Your task to perform on an android device: see creations saved in the google photos Image 0: 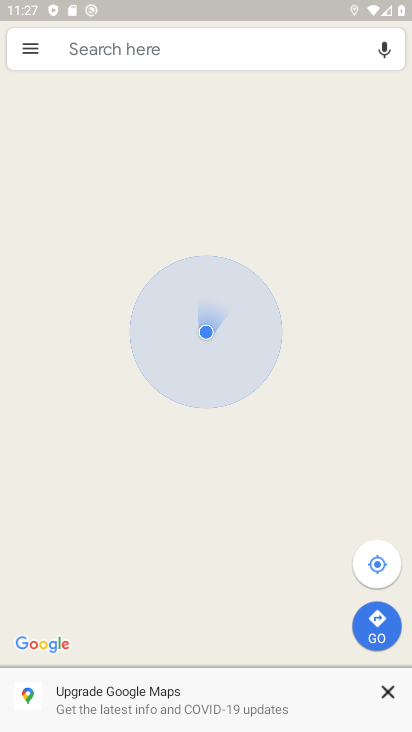
Step 0: press home button
Your task to perform on an android device: see creations saved in the google photos Image 1: 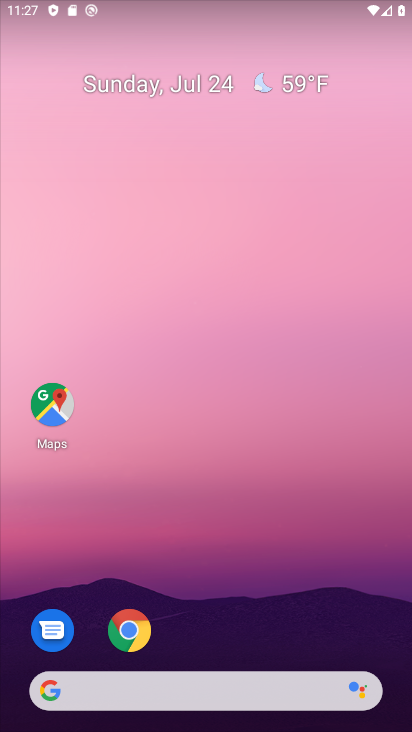
Step 1: drag from (239, 656) to (214, 154)
Your task to perform on an android device: see creations saved in the google photos Image 2: 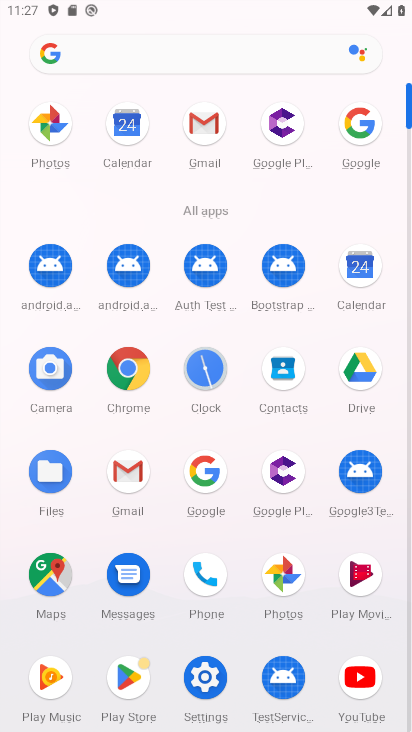
Step 2: click (284, 577)
Your task to perform on an android device: see creations saved in the google photos Image 3: 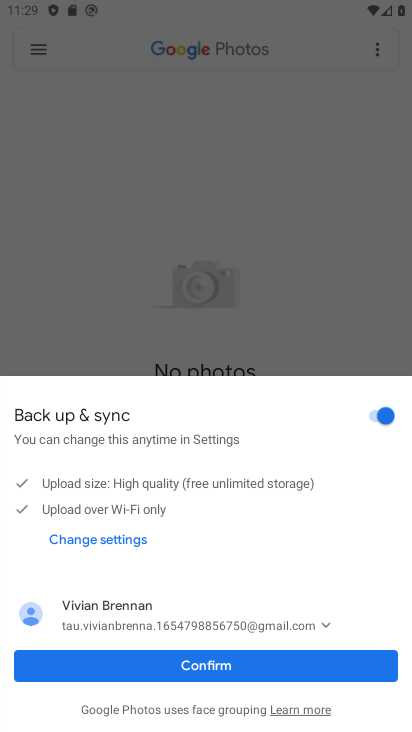
Step 3: click (220, 658)
Your task to perform on an android device: see creations saved in the google photos Image 4: 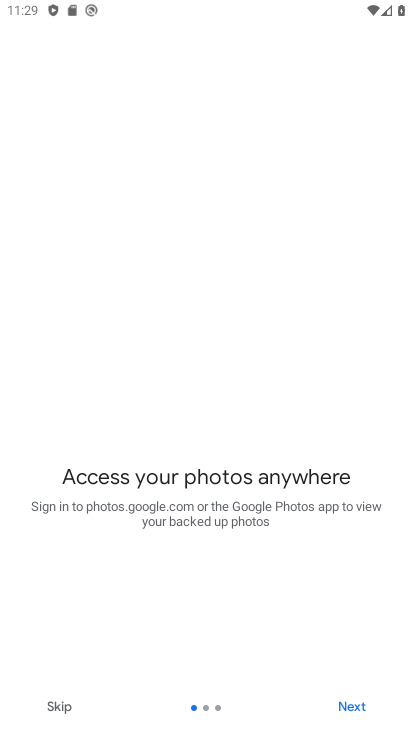
Step 4: click (353, 708)
Your task to perform on an android device: see creations saved in the google photos Image 5: 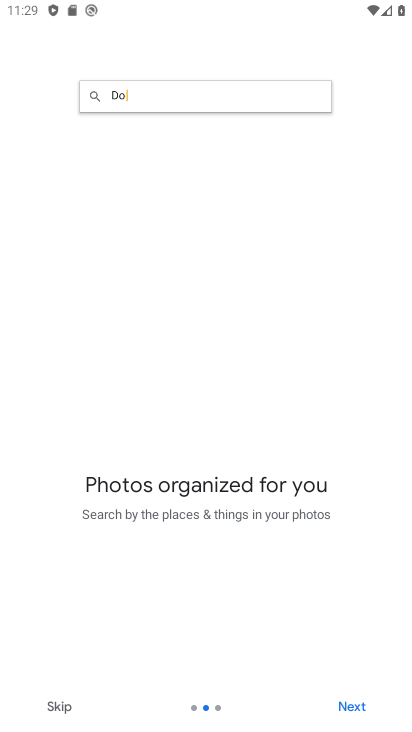
Step 5: click (353, 708)
Your task to perform on an android device: see creations saved in the google photos Image 6: 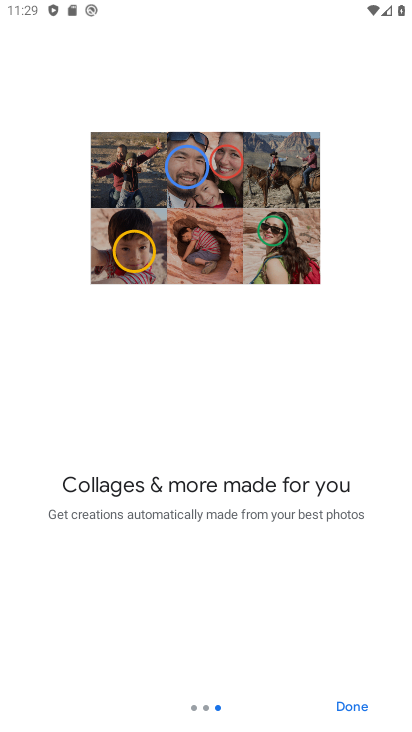
Step 6: click (353, 708)
Your task to perform on an android device: see creations saved in the google photos Image 7: 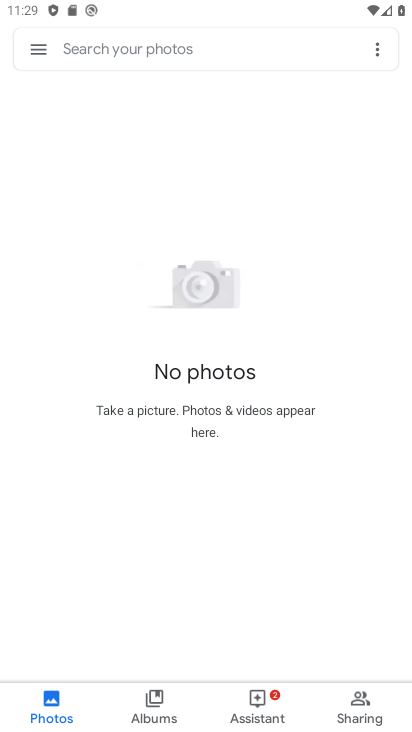
Step 7: click (157, 706)
Your task to perform on an android device: see creations saved in the google photos Image 8: 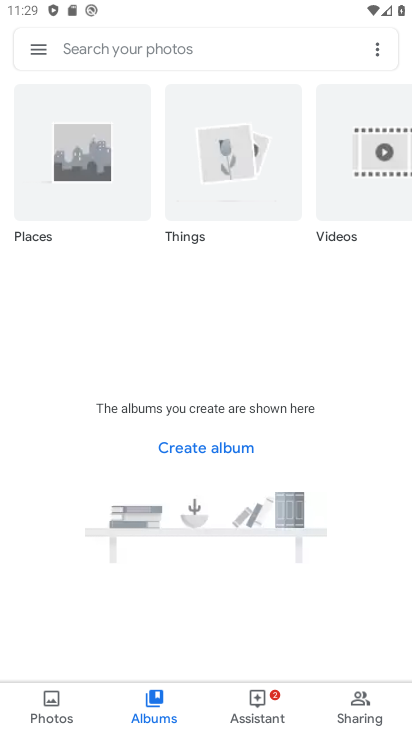
Step 8: task complete